Your task to perform on an android device: Go to sound settings Image 0: 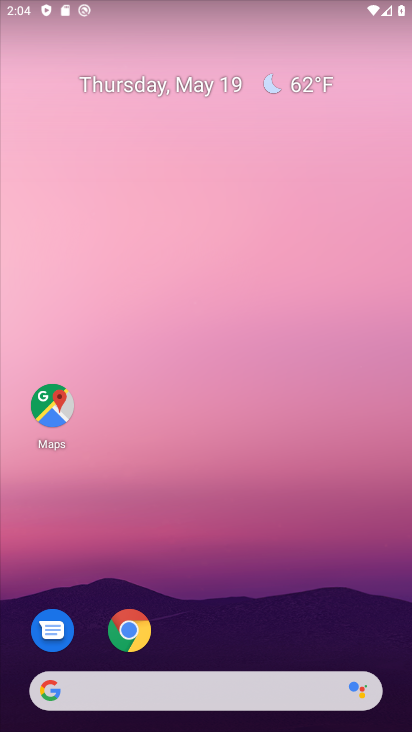
Step 0: drag from (321, 581) to (335, 207)
Your task to perform on an android device: Go to sound settings Image 1: 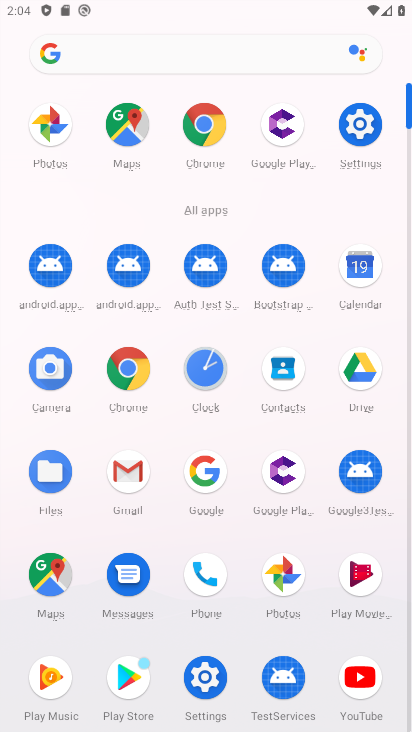
Step 1: click (203, 672)
Your task to perform on an android device: Go to sound settings Image 2: 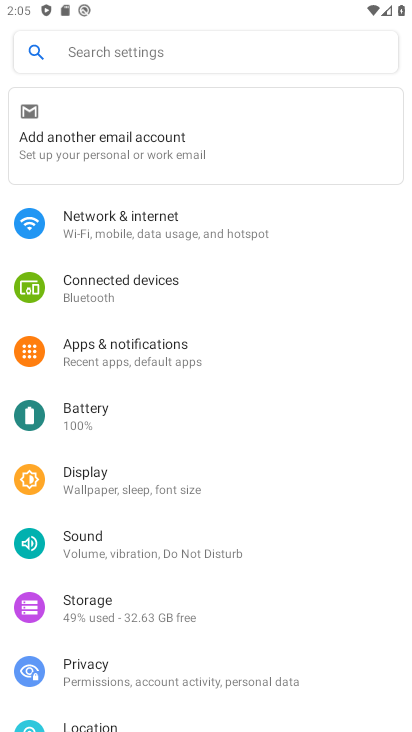
Step 2: click (78, 550)
Your task to perform on an android device: Go to sound settings Image 3: 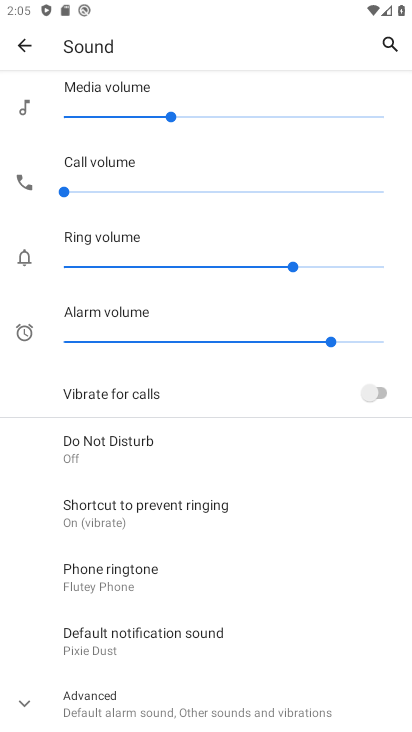
Step 3: task complete